Your task to perform on an android device: Open Google Maps Image 0: 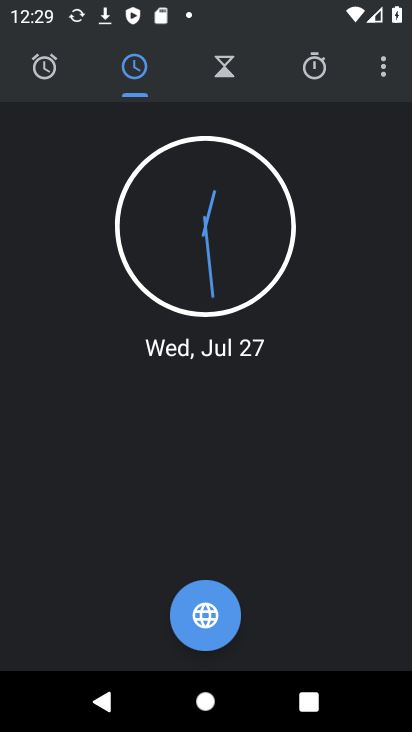
Step 0: press home button
Your task to perform on an android device: Open Google Maps Image 1: 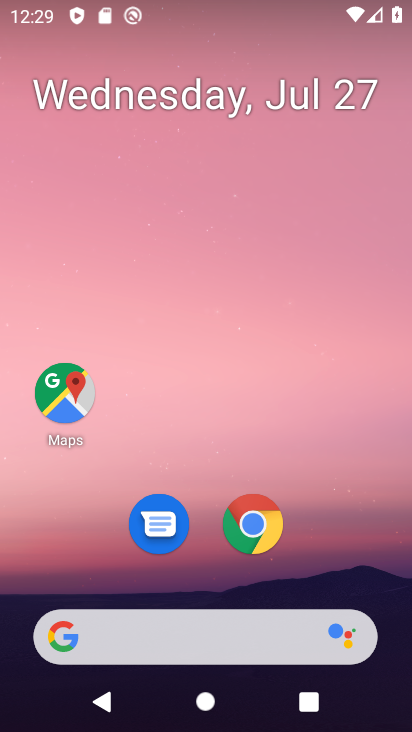
Step 1: click (73, 388)
Your task to perform on an android device: Open Google Maps Image 2: 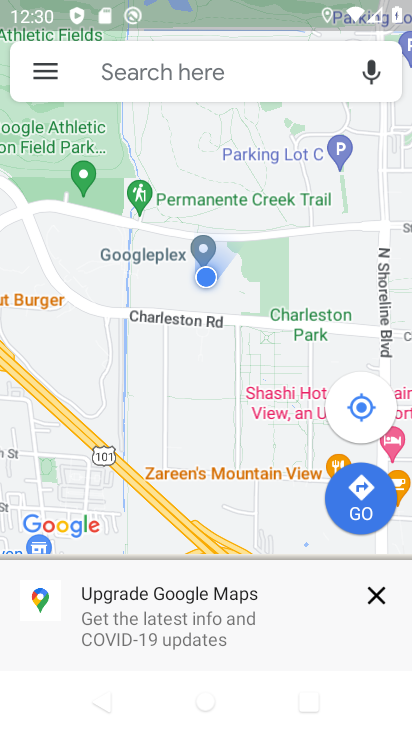
Step 2: task complete